Your task to perform on an android device: change notifications settings Image 0: 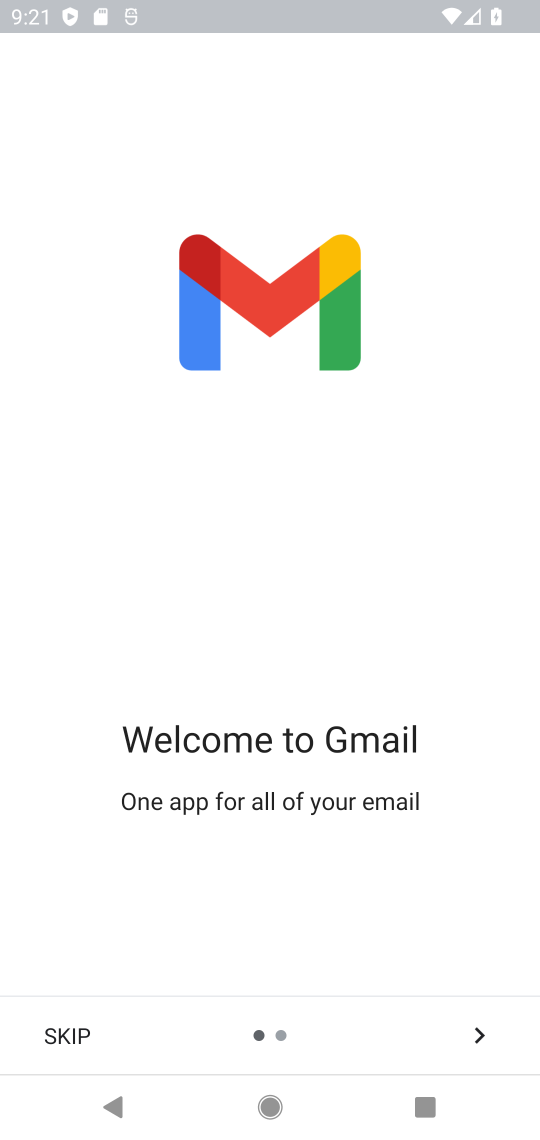
Step 0: click (493, 1020)
Your task to perform on an android device: change notifications settings Image 1: 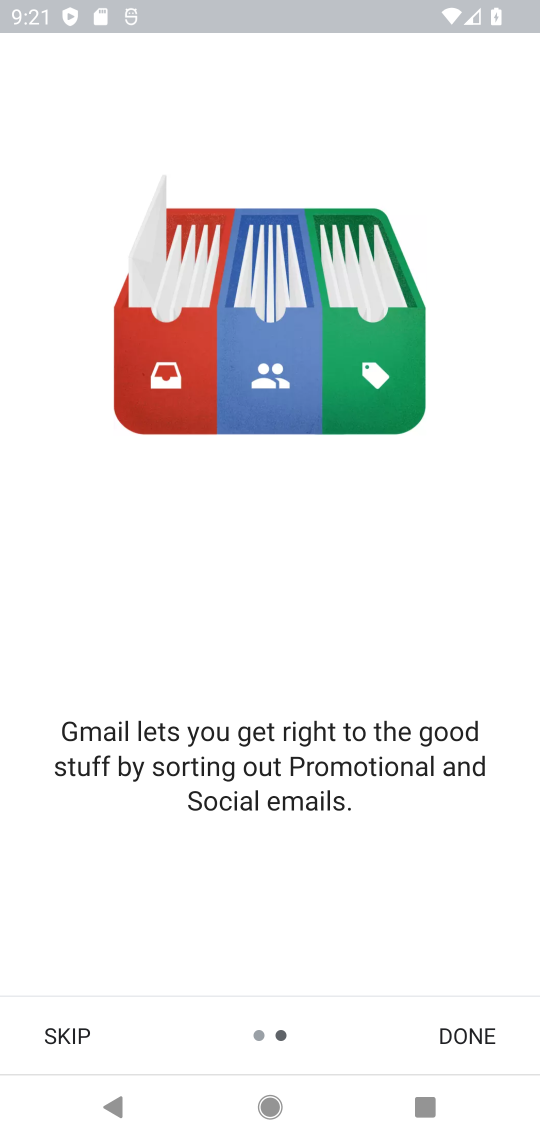
Step 1: click (487, 1036)
Your task to perform on an android device: change notifications settings Image 2: 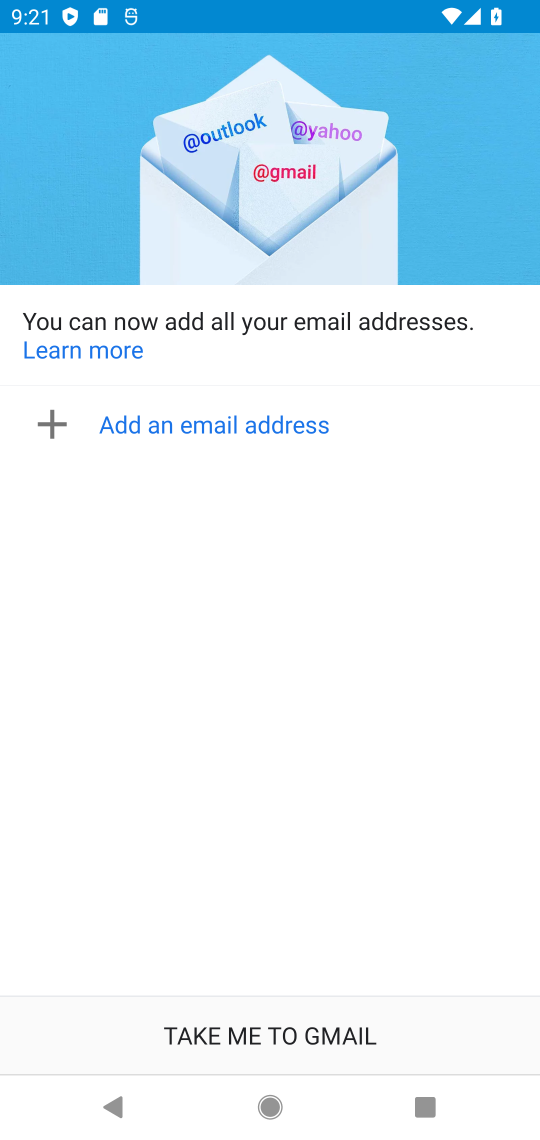
Step 2: press home button
Your task to perform on an android device: change notifications settings Image 3: 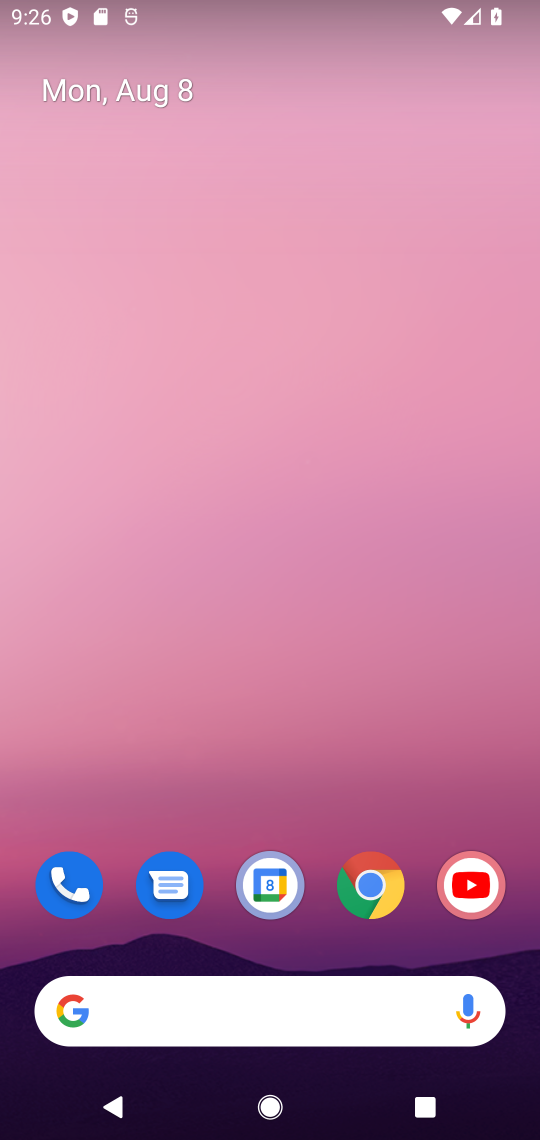
Step 3: drag from (236, 1094) to (221, 277)
Your task to perform on an android device: change notifications settings Image 4: 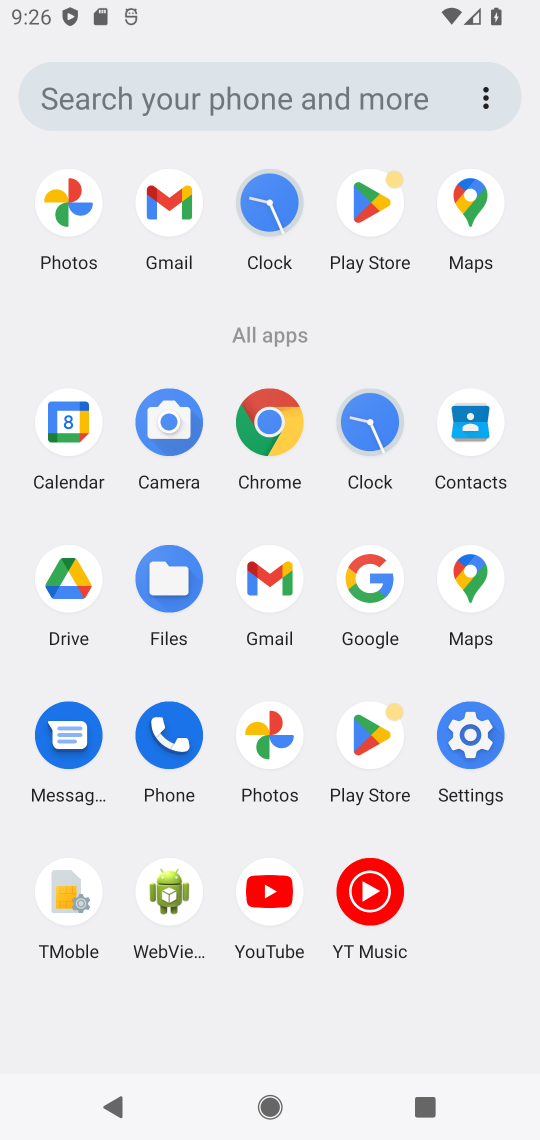
Step 4: click (445, 742)
Your task to perform on an android device: change notifications settings Image 5: 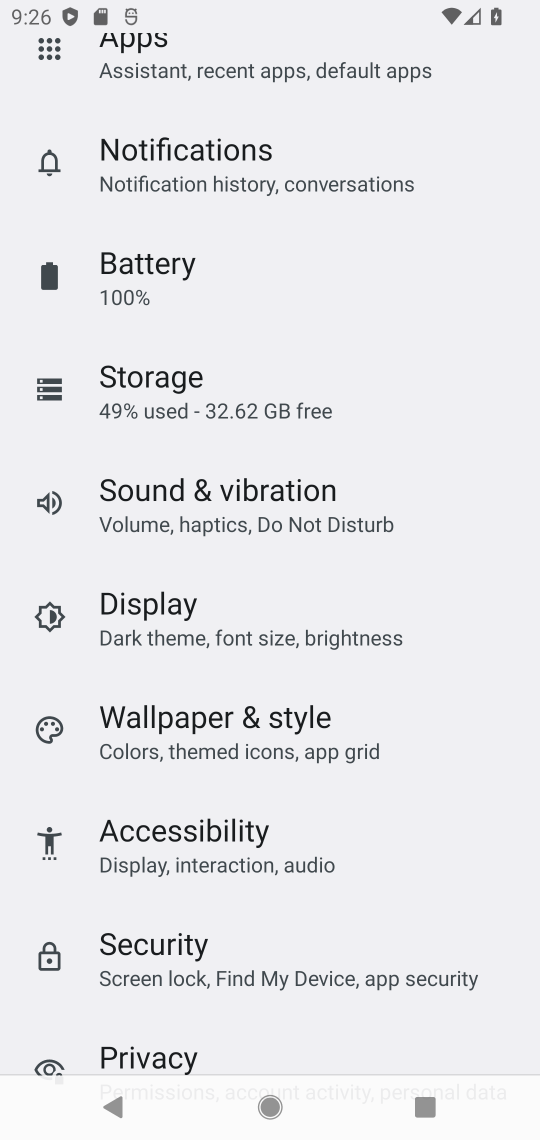
Step 5: click (296, 198)
Your task to perform on an android device: change notifications settings Image 6: 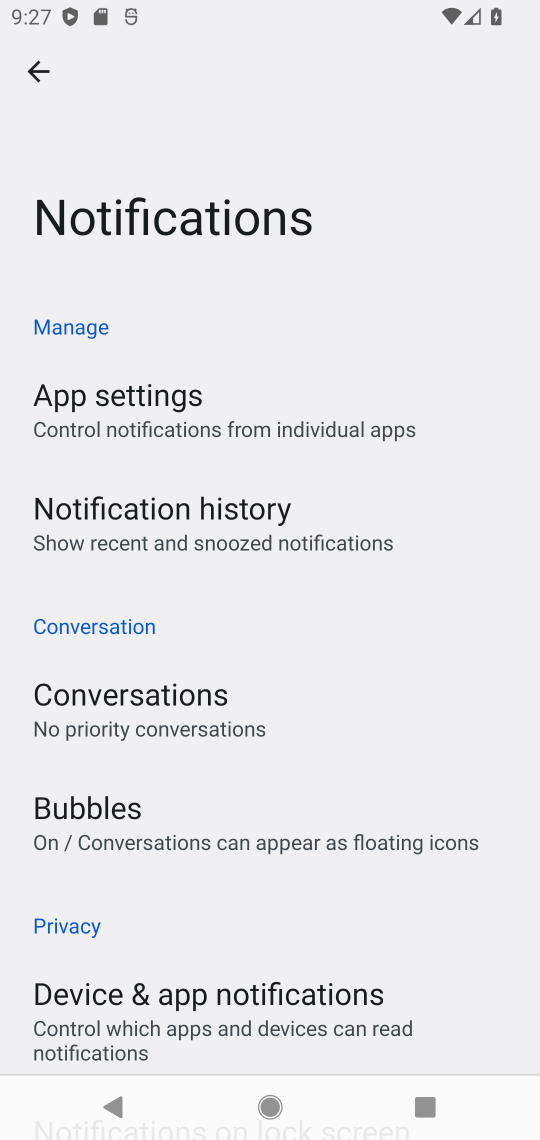
Step 6: click (242, 508)
Your task to perform on an android device: change notifications settings Image 7: 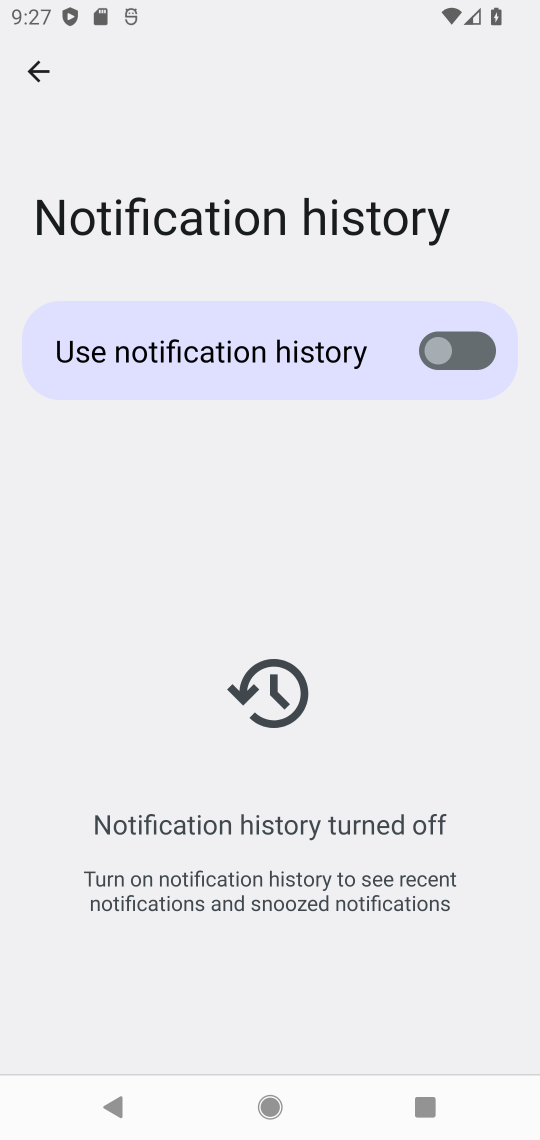
Step 7: click (415, 359)
Your task to perform on an android device: change notifications settings Image 8: 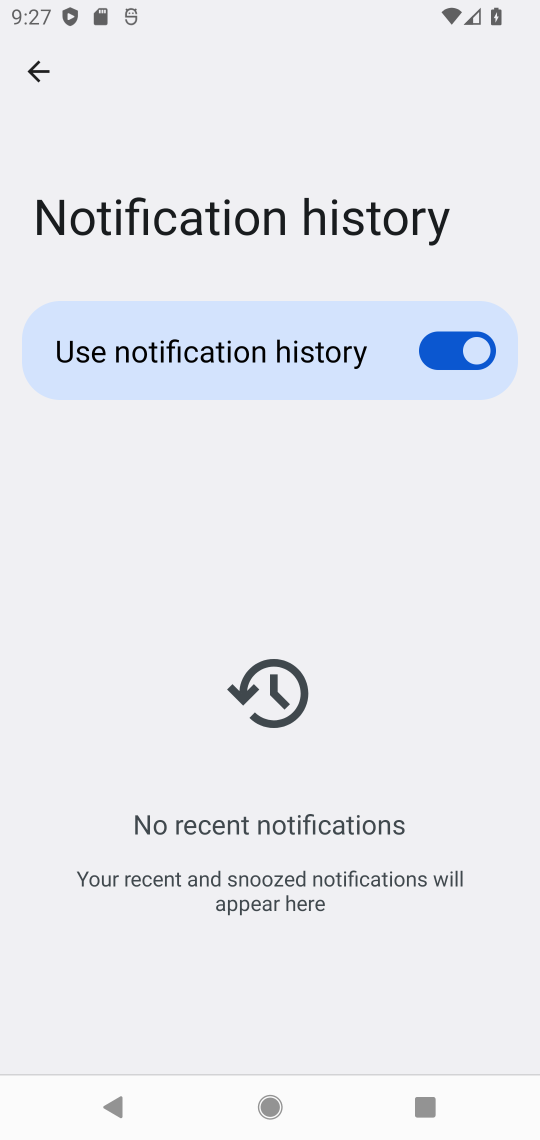
Step 8: task complete